Your task to perform on an android device: toggle sleep mode Image 0: 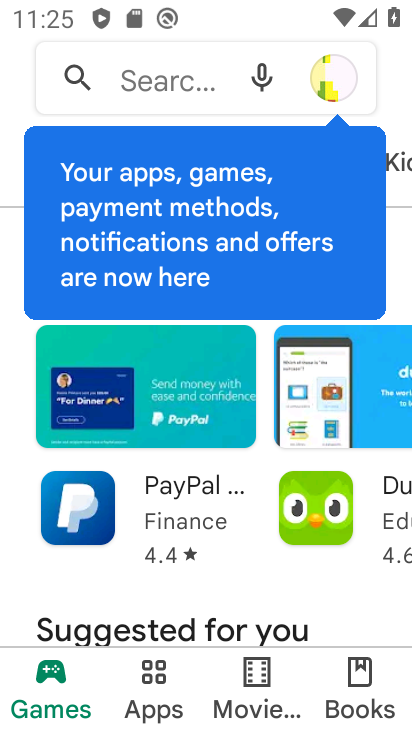
Step 0: press home button
Your task to perform on an android device: toggle sleep mode Image 1: 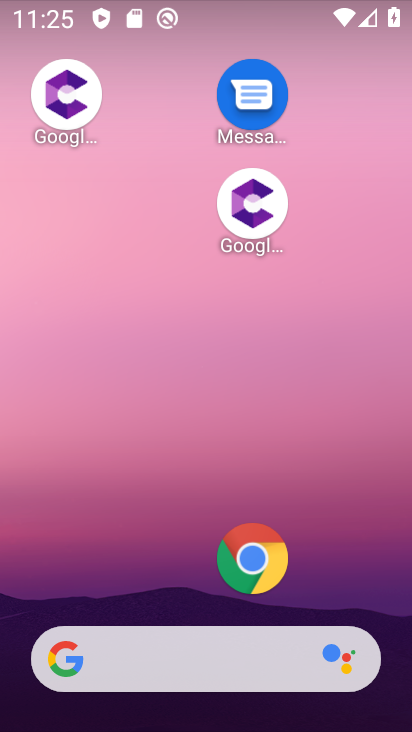
Step 1: drag from (160, 592) to (230, 128)
Your task to perform on an android device: toggle sleep mode Image 2: 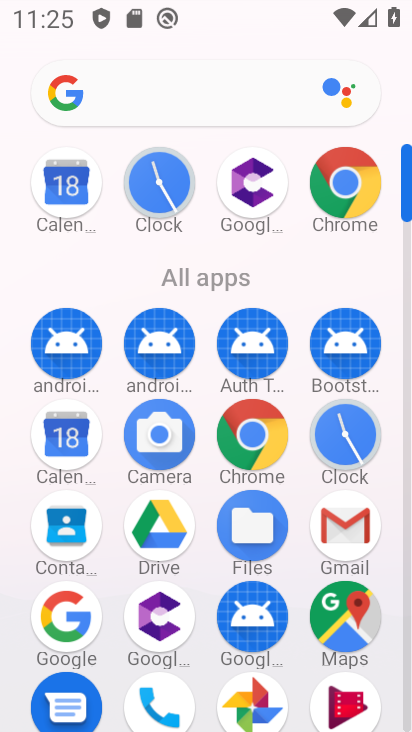
Step 2: drag from (206, 559) to (253, 261)
Your task to perform on an android device: toggle sleep mode Image 3: 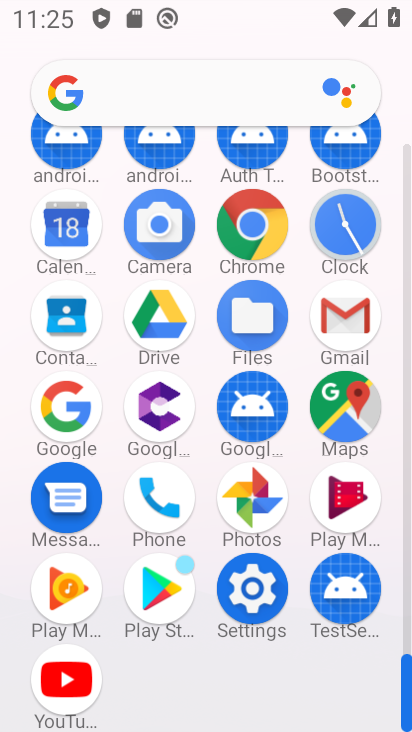
Step 3: click (253, 581)
Your task to perform on an android device: toggle sleep mode Image 4: 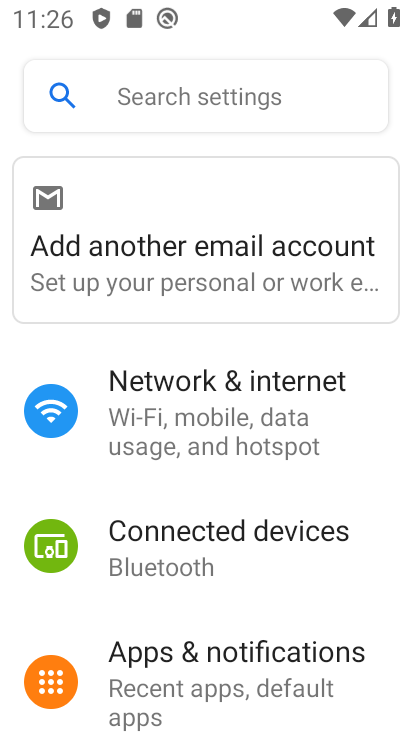
Step 4: drag from (212, 604) to (269, 357)
Your task to perform on an android device: toggle sleep mode Image 5: 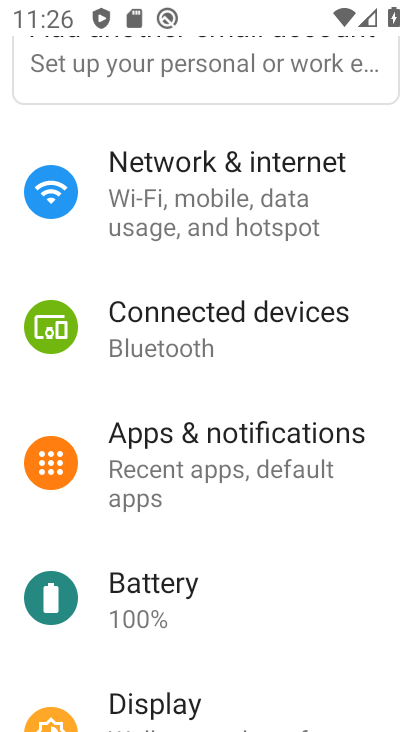
Step 5: drag from (214, 577) to (290, 377)
Your task to perform on an android device: toggle sleep mode Image 6: 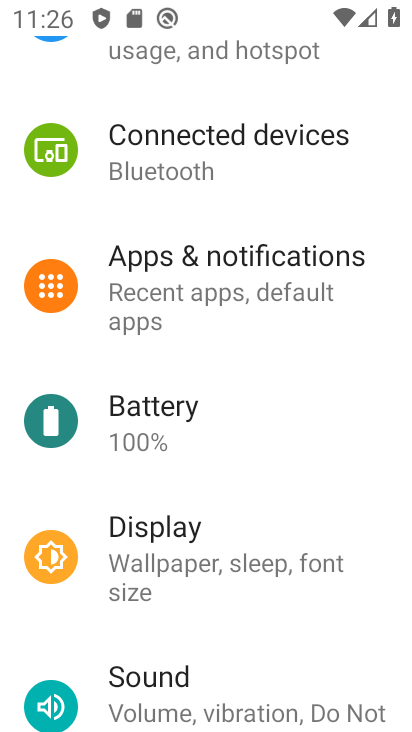
Step 6: click (209, 551)
Your task to perform on an android device: toggle sleep mode Image 7: 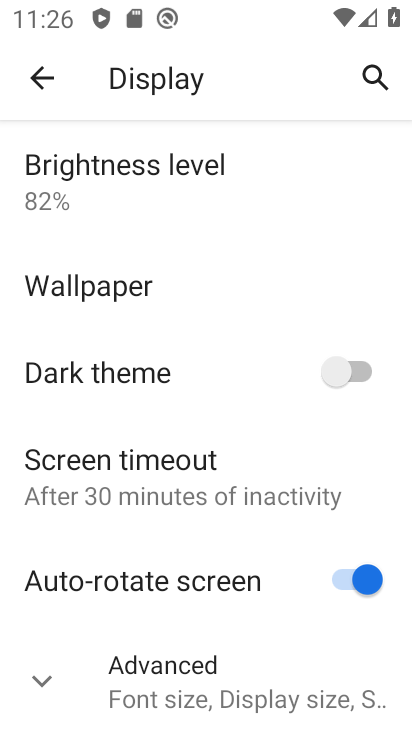
Step 7: drag from (156, 566) to (197, 310)
Your task to perform on an android device: toggle sleep mode Image 8: 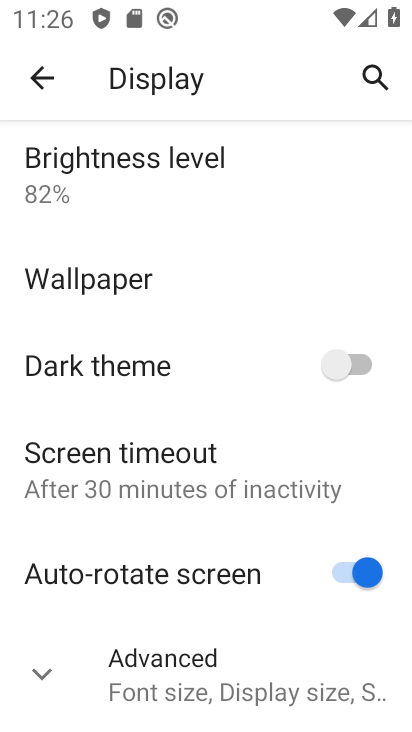
Step 8: click (46, 667)
Your task to perform on an android device: toggle sleep mode Image 9: 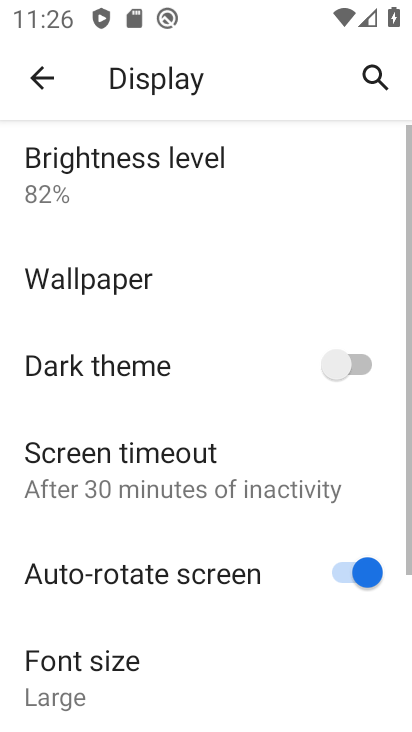
Step 9: task complete